Your task to perform on an android device: delete browsing data in the chrome app Image 0: 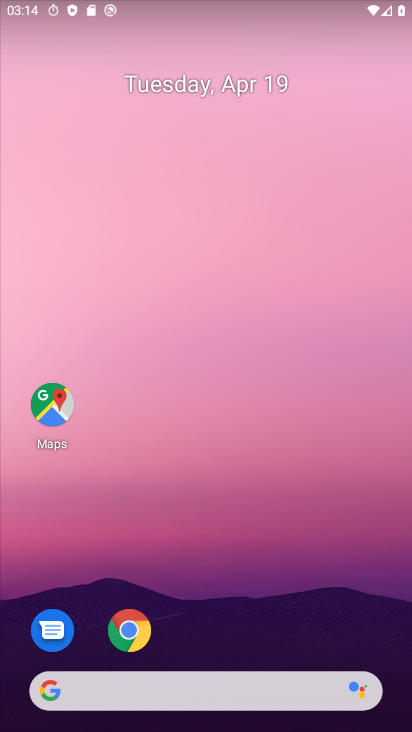
Step 0: click (140, 632)
Your task to perform on an android device: delete browsing data in the chrome app Image 1: 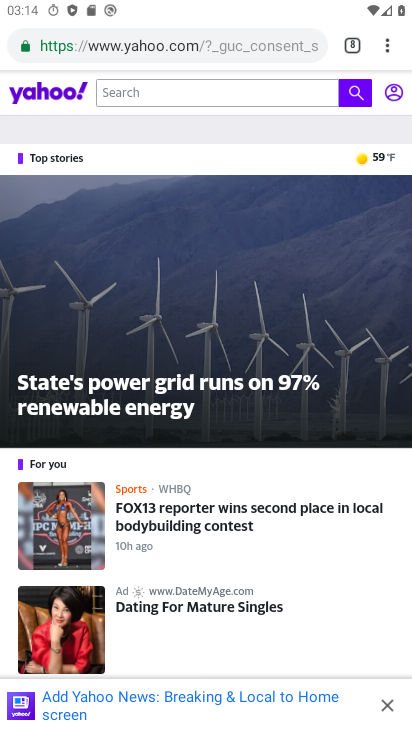
Step 1: click (391, 38)
Your task to perform on an android device: delete browsing data in the chrome app Image 2: 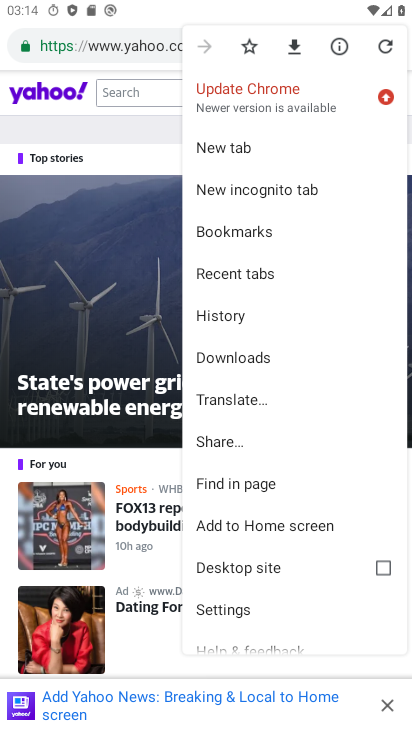
Step 2: click (227, 604)
Your task to perform on an android device: delete browsing data in the chrome app Image 3: 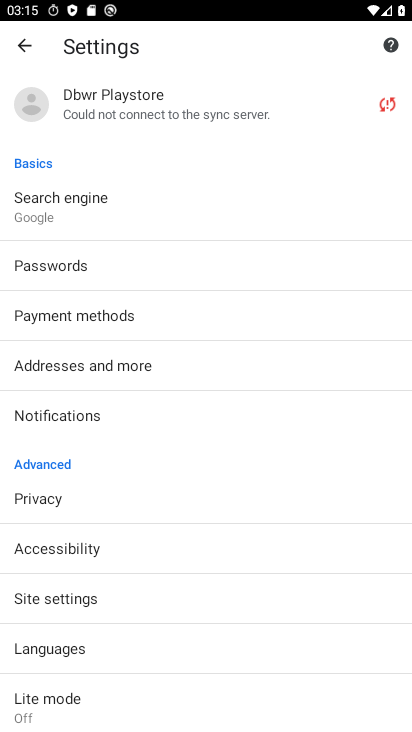
Step 3: click (27, 39)
Your task to perform on an android device: delete browsing data in the chrome app Image 4: 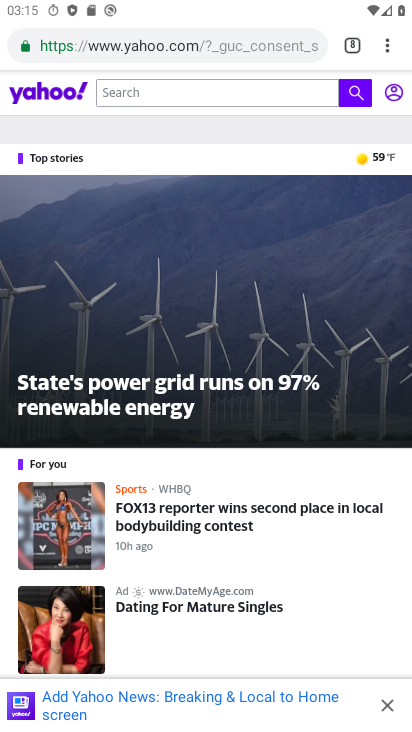
Step 4: click (386, 40)
Your task to perform on an android device: delete browsing data in the chrome app Image 5: 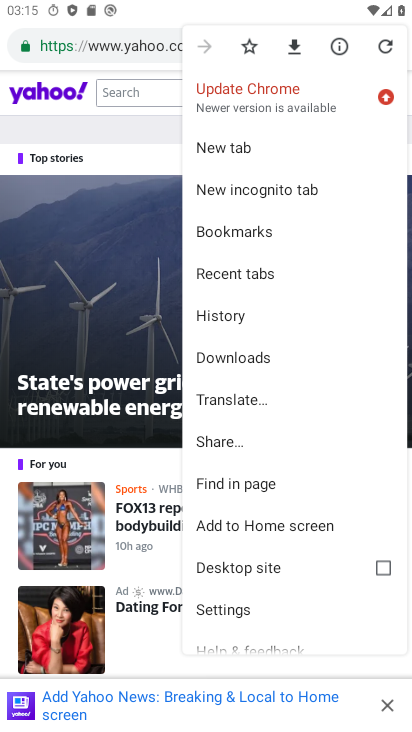
Step 5: click (237, 319)
Your task to perform on an android device: delete browsing data in the chrome app Image 6: 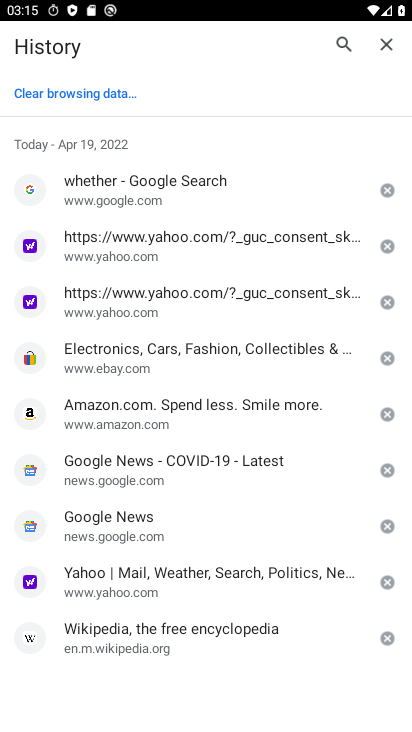
Step 6: click (94, 94)
Your task to perform on an android device: delete browsing data in the chrome app Image 7: 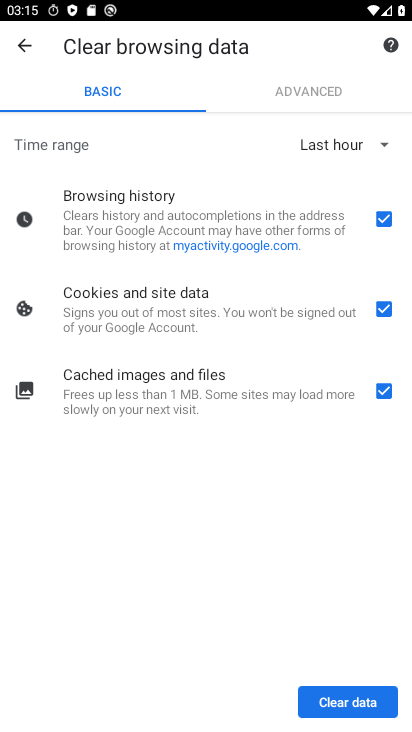
Step 7: click (364, 142)
Your task to perform on an android device: delete browsing data in the chrome app Image 8: 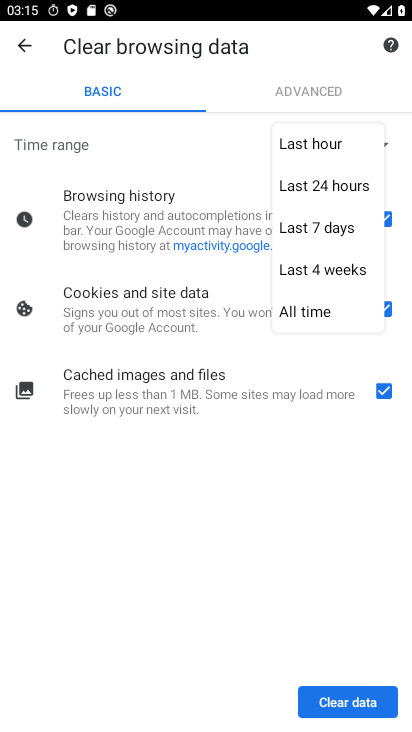
Step 8: click (322, 307)
Your task to perform on an android device: delete browsing data in the chrome app Image 9: 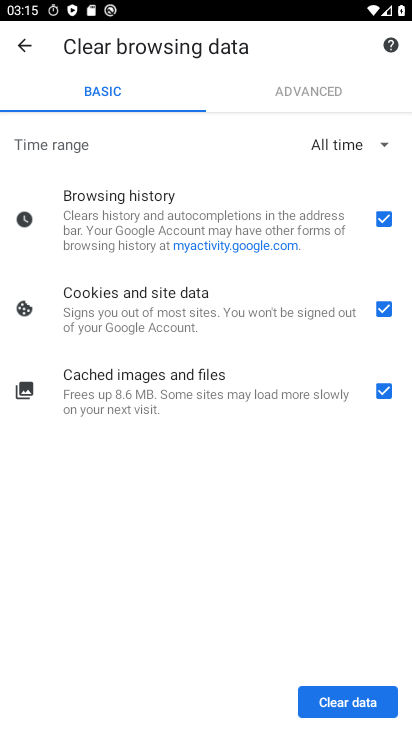
Step 9: click (354, 702)
Your task to perform on an android device: delete browsing data in the chrome app Image 10: 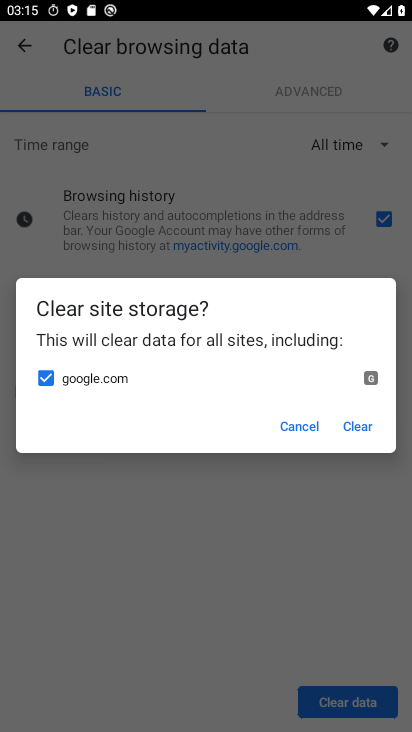
Step 10: click (357, 428)
Your task to perform on an android device: delete browsing data in the chrome app Image 11: 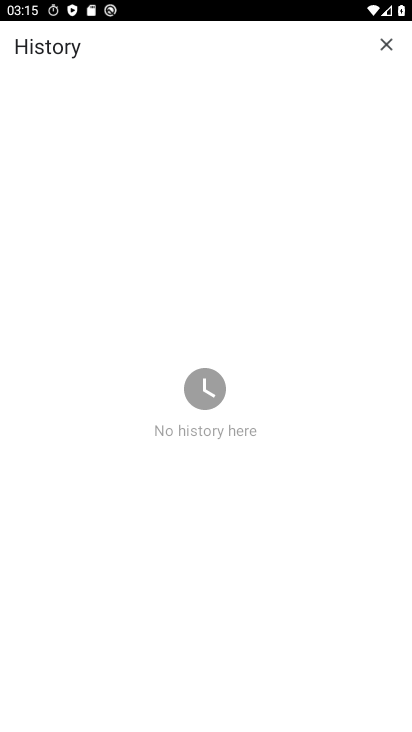
Step 11: task complete